Your task to perform on an android device: Search for a new grill on Home Depot Image 0: 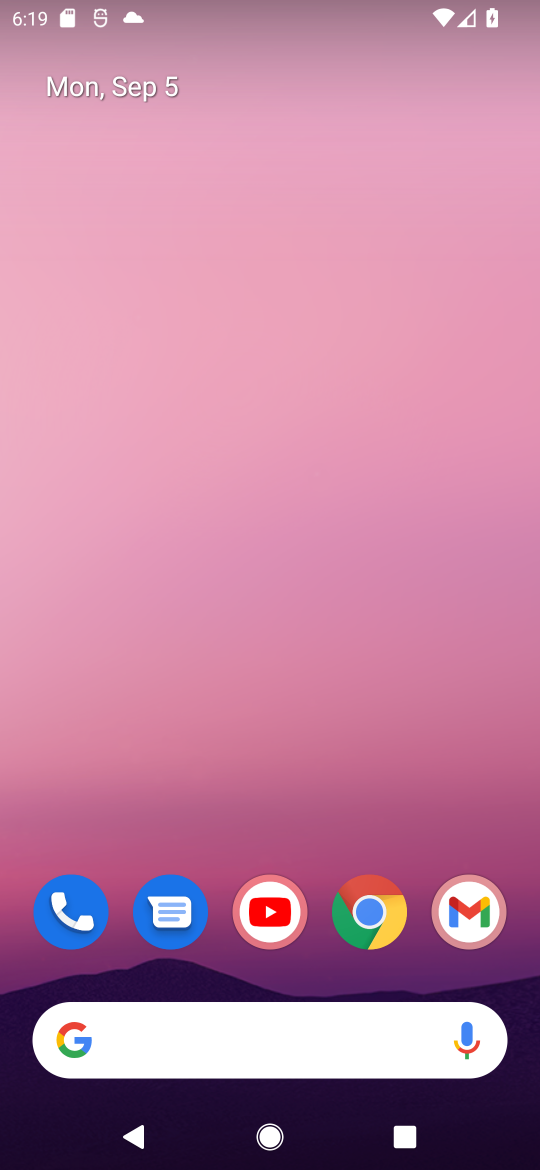
Step 0: click (369, 912)
Your task to perform on an android device: Search for a new grill on Home Depot Image 1: 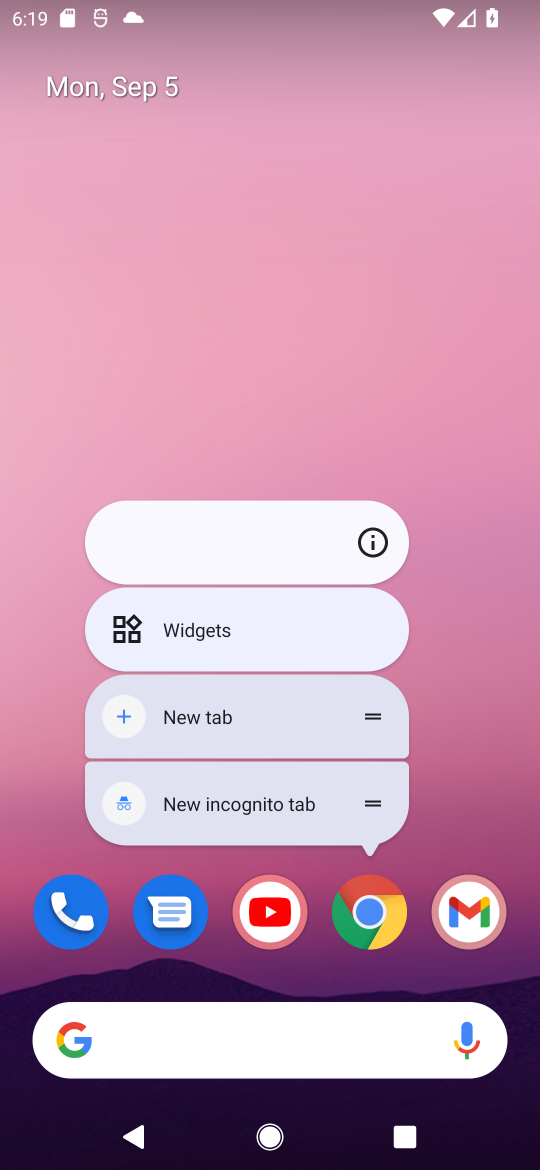
Step 1: click (369, 912)
Your task to perform on an android device: Search for a new grill on Home Depot Image 2: 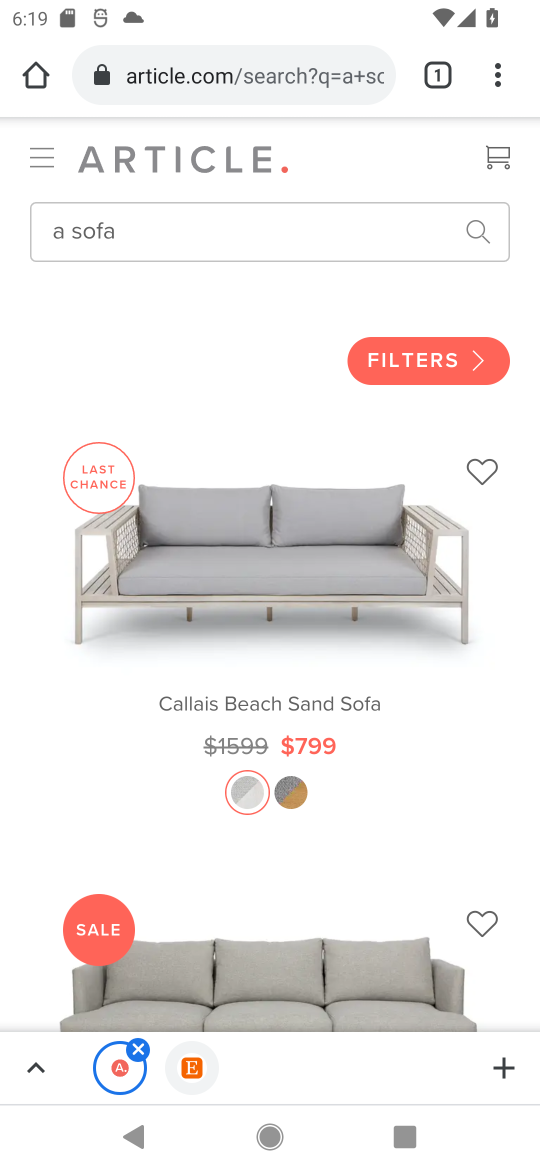
Step 2: click (304, 80)
Your task to perform on an android device: Search for a new grill on Home Depot Image 3: 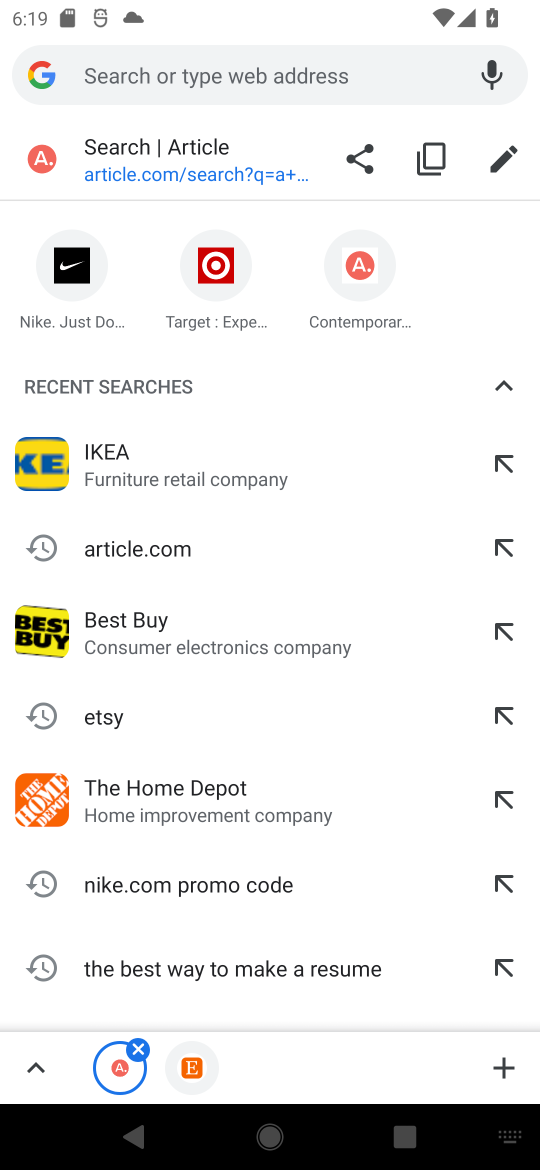
Step 3: type "the home depot"
Your task to perform on an android device: Search for a new grill on Home Depot Image 4: 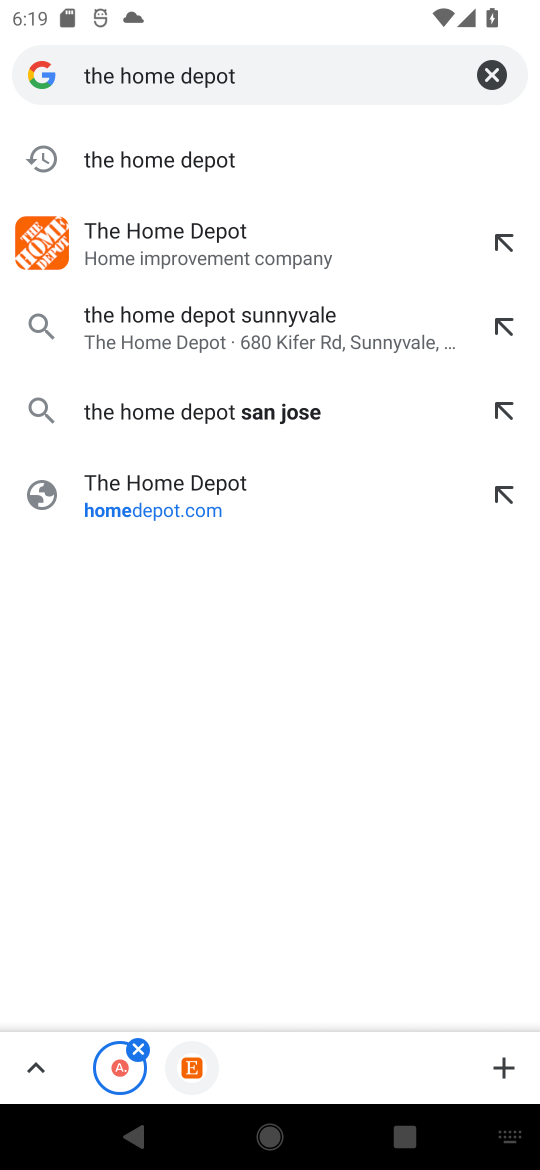
Step 4: click (227, 231)
Your task to perform on an android device: Search for a new grill on Home Depot Image 5: 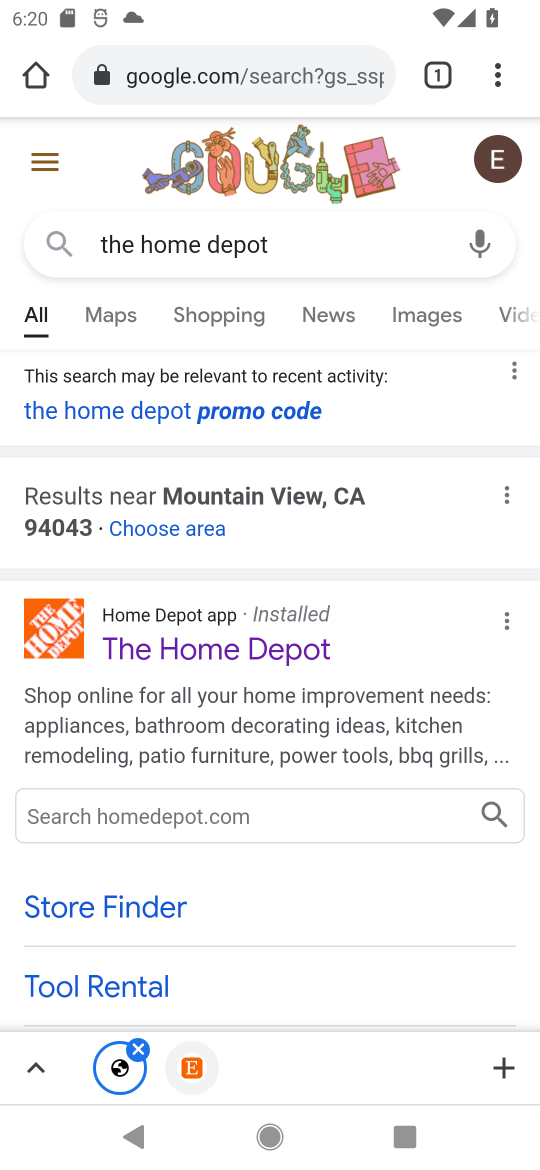
Step 5: click (248, 647)
Your task to perform on an android device: Search for a new grill on Home Depot Image 6: 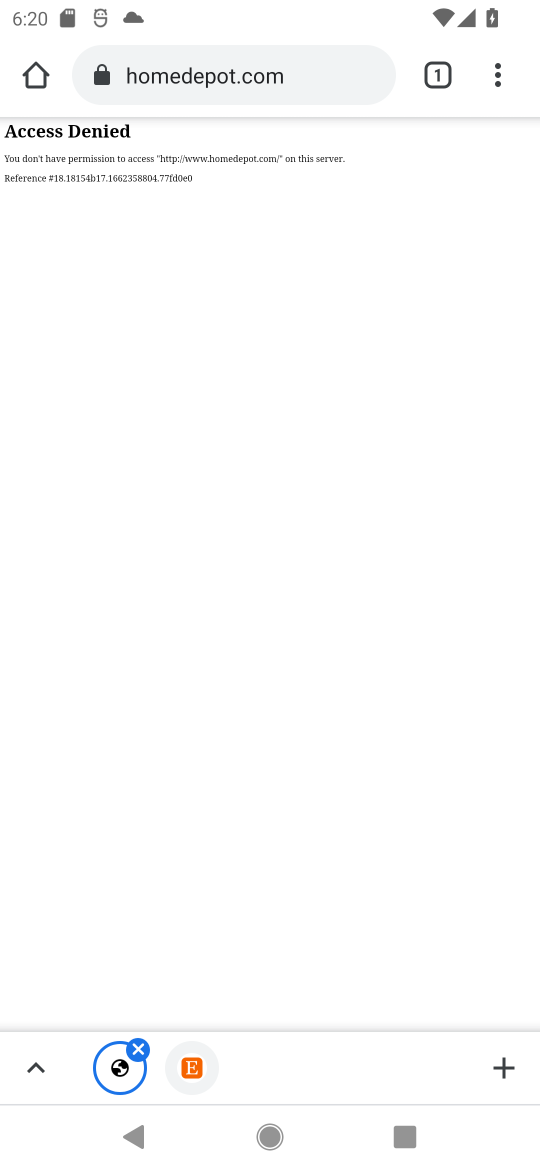
Step 6: task complete